Your task to perform on an android device: Play the last video I watched on Youtube Image 0: 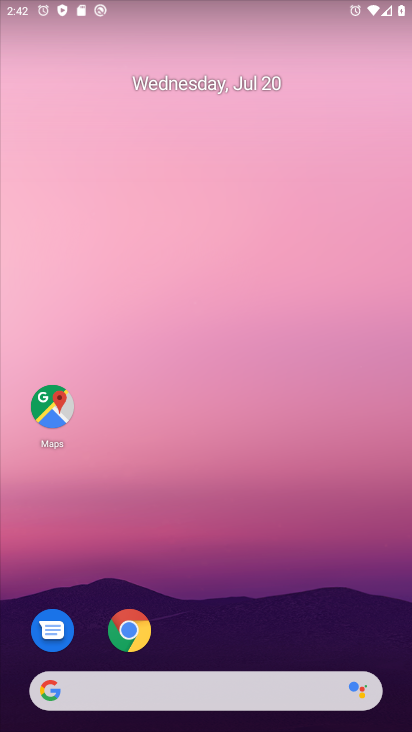
Step 0: drag from (2, 698) to (297, 165)
Your task to perform on an android device: Play the last video I watched on Youtube Image 1: 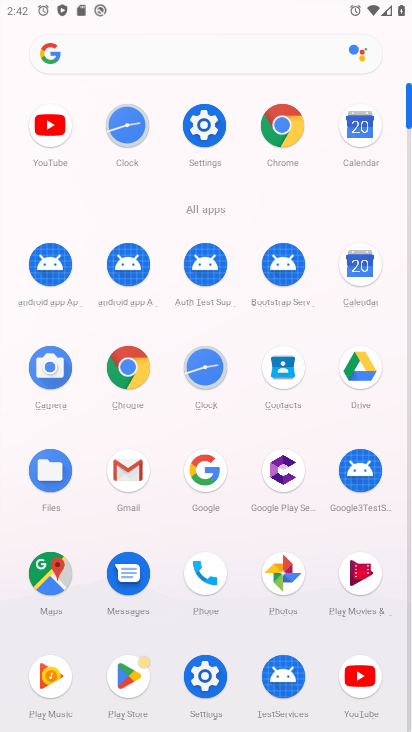
Step 1: click (372, 667)
Your task to perform on an android device: Play the last video I watched on Youtube Image 2: 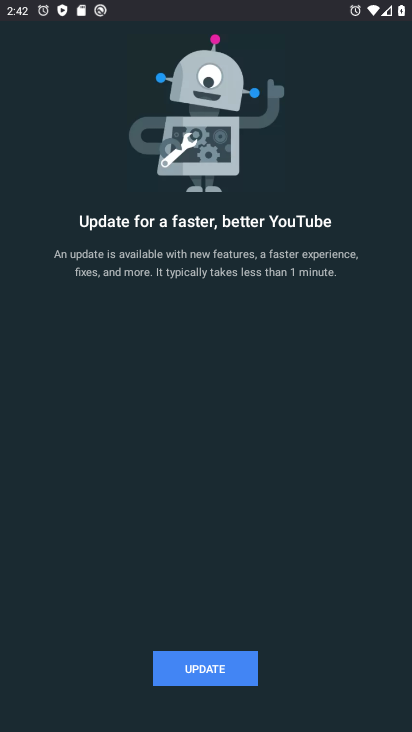
Step 2: task complete